Your task to perform on an android device: Open settings on Google Maps Image 0: 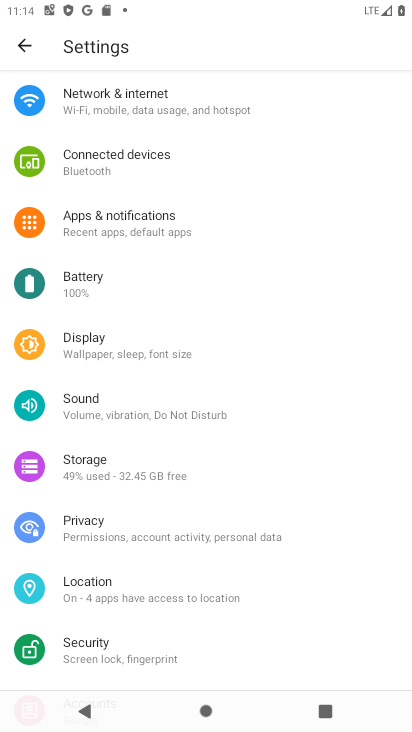
Step 0: press home button
Your task to perform on an android device: Open settings on Google Maps Image 1: 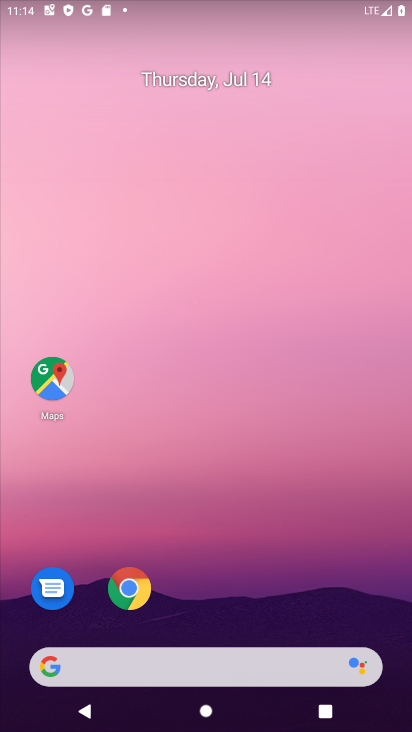
Step 1: click (54, 383)
Your task to perform on an android device: Open settings on Google Maps Image 2: 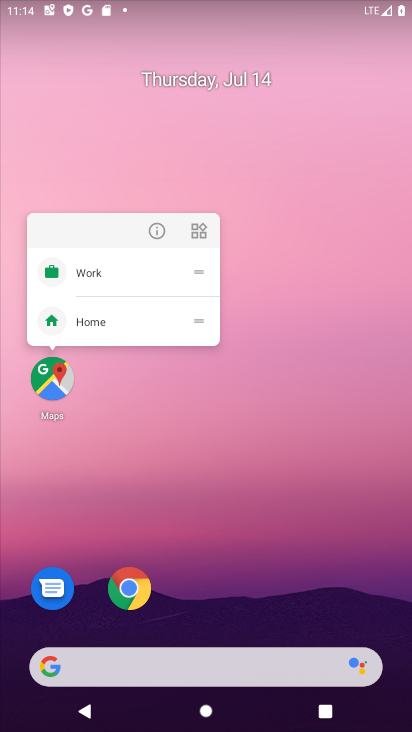
Step 2: click (54, 383)
Your task to perform on an android device: Open settings on Google Maps Image 3: 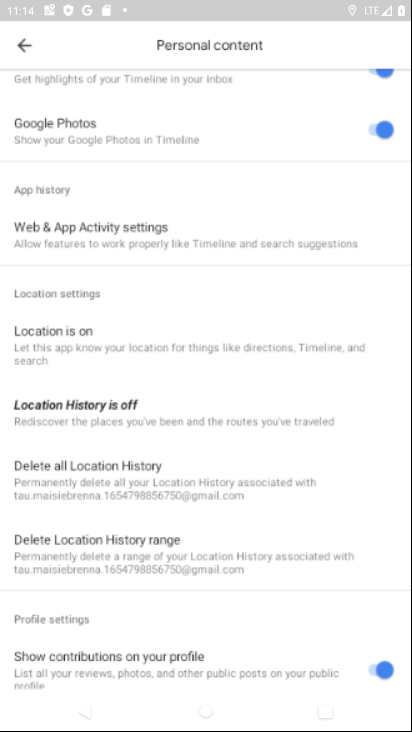
Step 3: click (27, 48)
Your task to perform on an android device: Open settings on Google Maps Image 4: 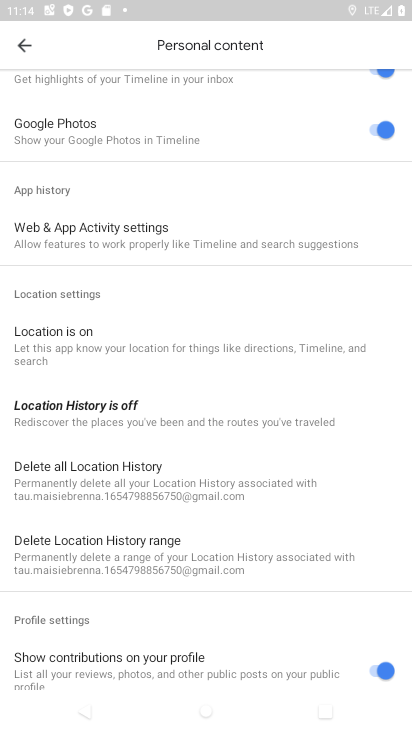
Step 4: click (23, 45)
Your task to perform on an android device: Open settings on Google Maps Image 5: 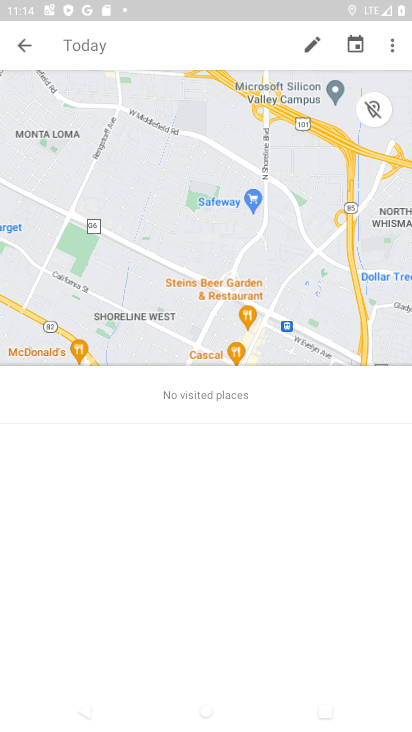
Step 5: click (30, 44)
Your task to perform on an android device: Open settings on Google Maps Image 6: 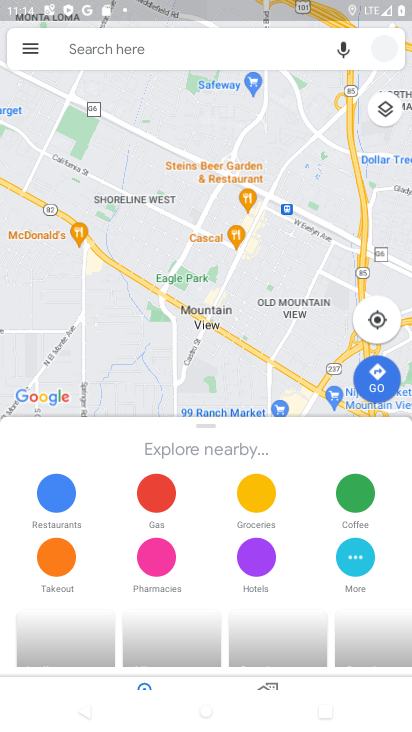
Step 6: click (25, 51)
Your task to perform on an android device: Open settings on Google Maps Image 7: 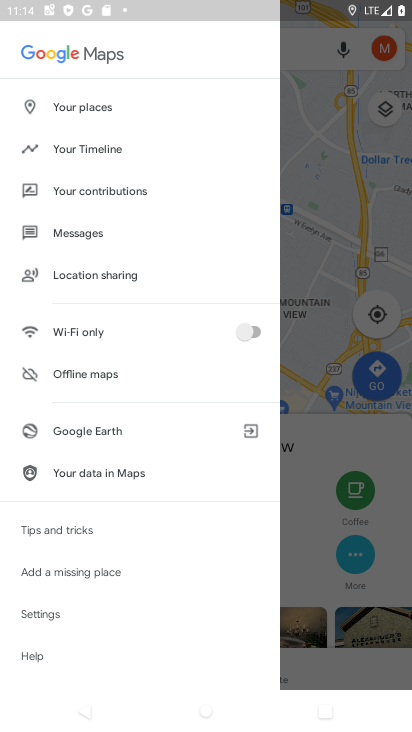
Step 7: click (54, 610)
Your task to perform on an android device: Open settings on Google Maps Image 8: 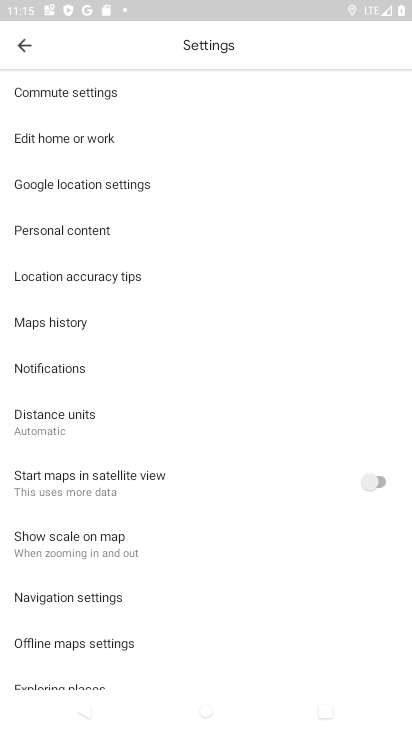
Step 8: task complete